Your task to perform on an android device: change notifications settings Image 0: 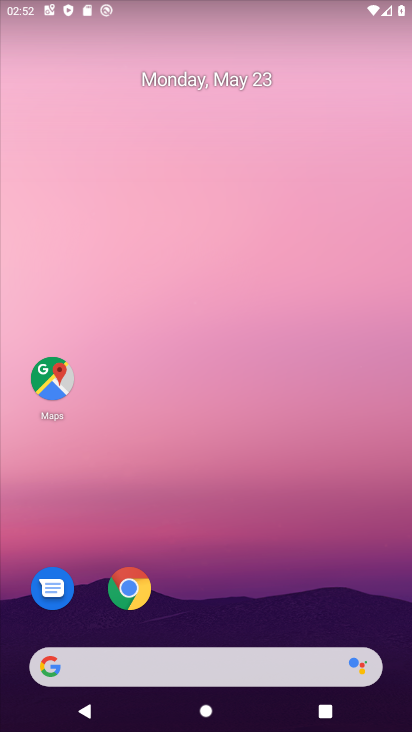
Step 0: drag from (219, 724) to (219, 17)
Your task to perform on an android device: change notifications settings Image 1: 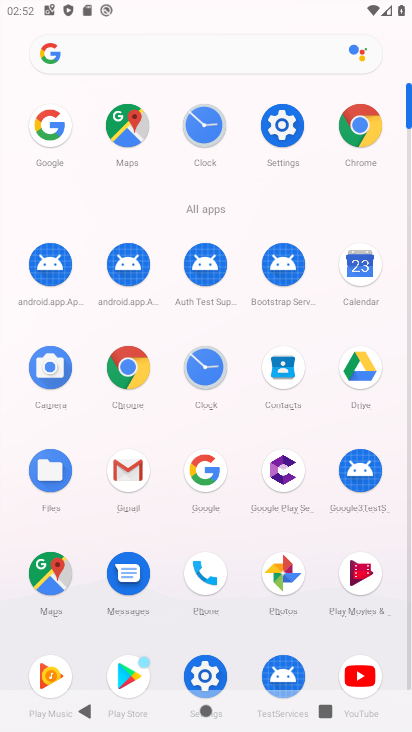
Step 1: click (284, 127)
Your task to perform on an android device: change notifications settings Image 2: 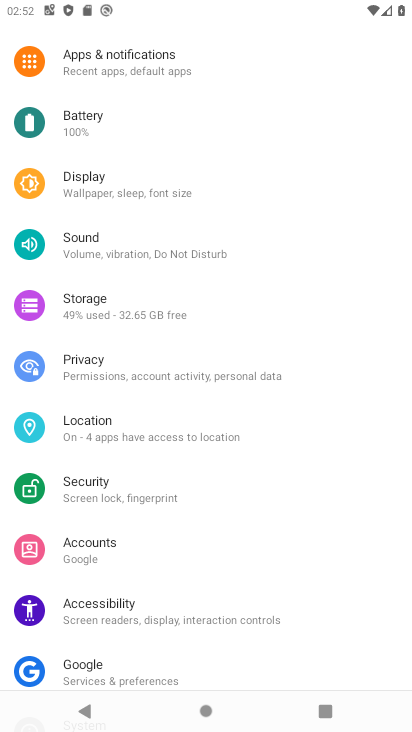
Step 2: click (131, 57)
Your task to perform on an android device: change notifications settings Image 3: 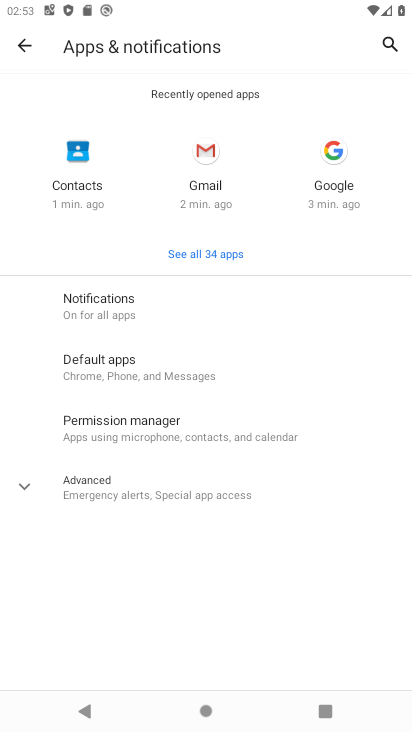
Step 3: click (121, 303)
Your task to perform on an android device: change notifications settings Image 4: 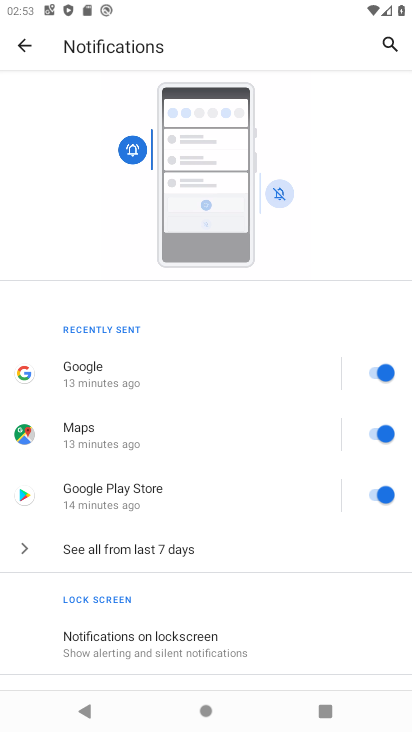
Step 4: drag from (112, 611) to (124, 272)
Your task to perform on an android device: change notifications settings Image 5: 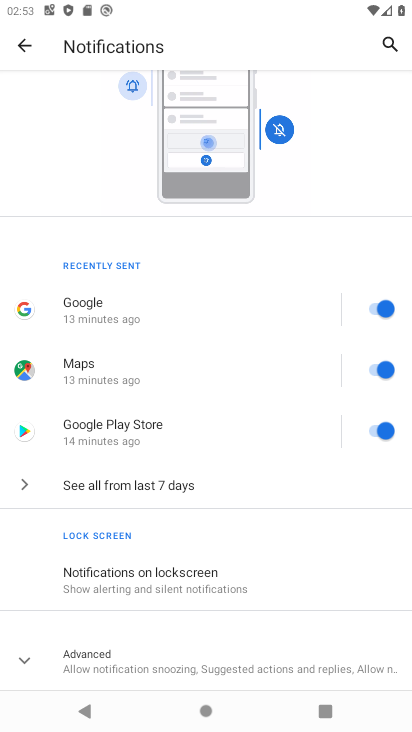
Step 5: drag from (132, 641) to (131, 321)
Your task to perform on an android device: change notifications settings Image 6: 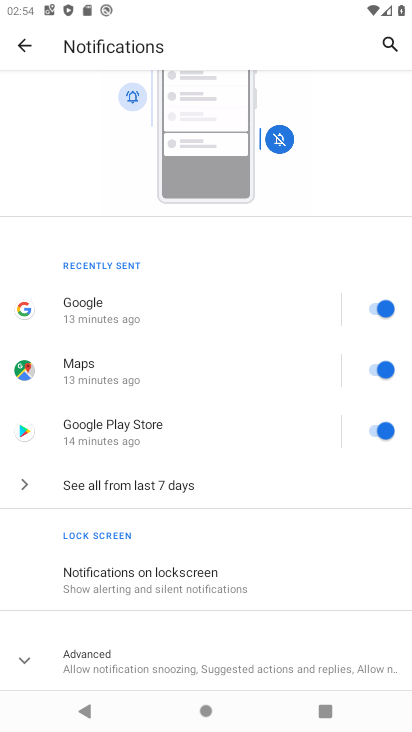
Step 6: click (94, 661)
Your task to perform on an android device: change notifications settings Image 7: 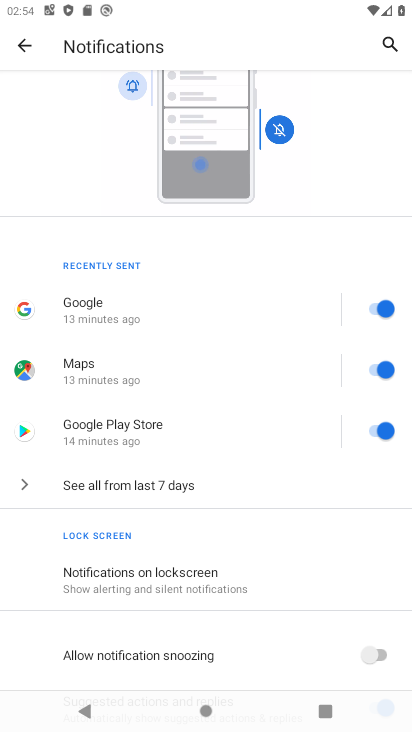
Step 7: click (377, 653)
Your task to perform on an android device: change notifications settings Image 8: 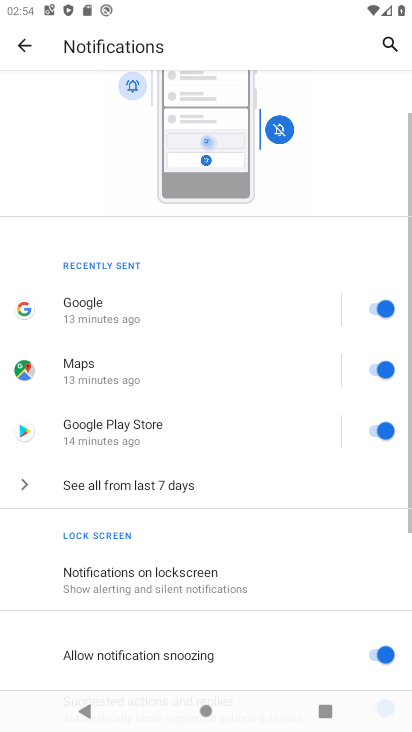
Step 8: task complete